Your task to perform on an android device: Open Reddit.com Image 0: 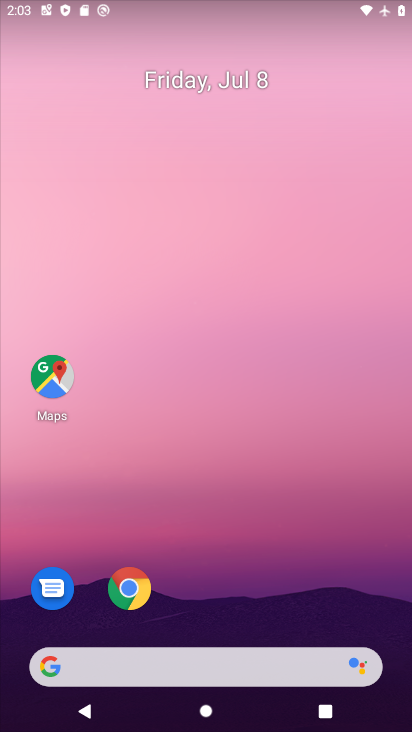
Step 0: press home button
Your task to perform on an android device: Open Reddit.com Image 1: 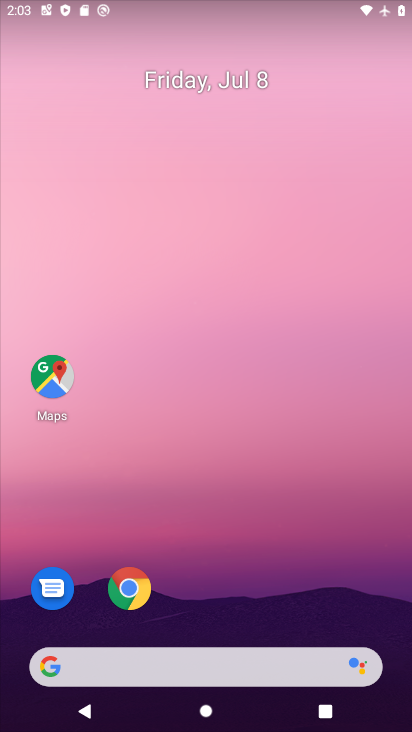
Step 1: drag from (204, 634) to (263, 146)
Your task to perform on an android device: Open Reddit.com Image 2: 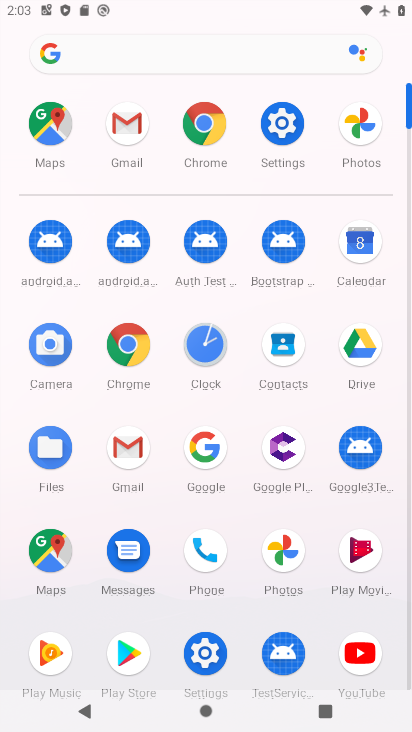
Step 2: click (202, 458)
Your task to perform on an android device: Open Reddit.com Image 3: 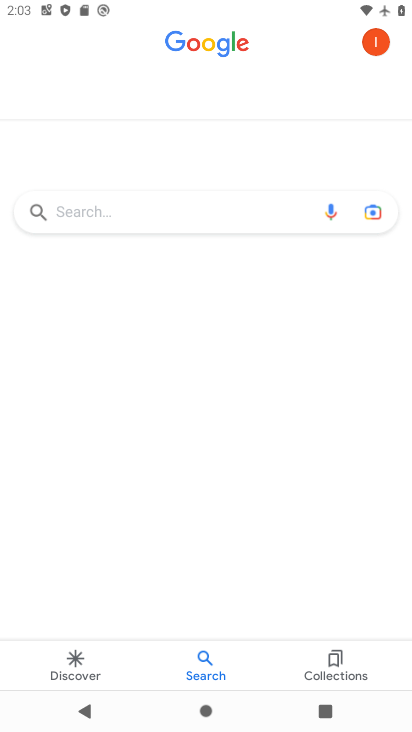
Step 3: type "Reddit.com"
Your task to perform on an android device: Open Reddit.com Image 4: 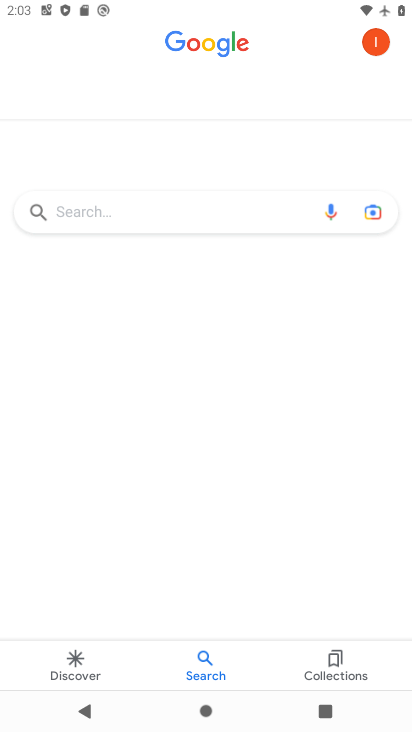
Step 4: click (192, 212)
Your task to perform on an android device: Open Reddit.com Image 5: 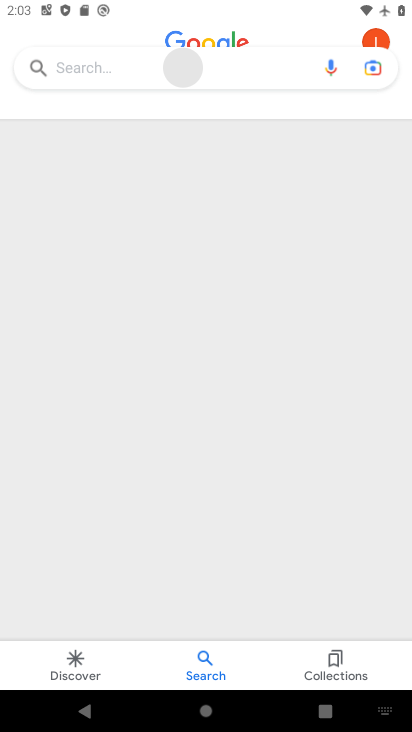
Step 5: click (192, 211)
Your task to perform on an android device: Open Reddit.com Image 6: 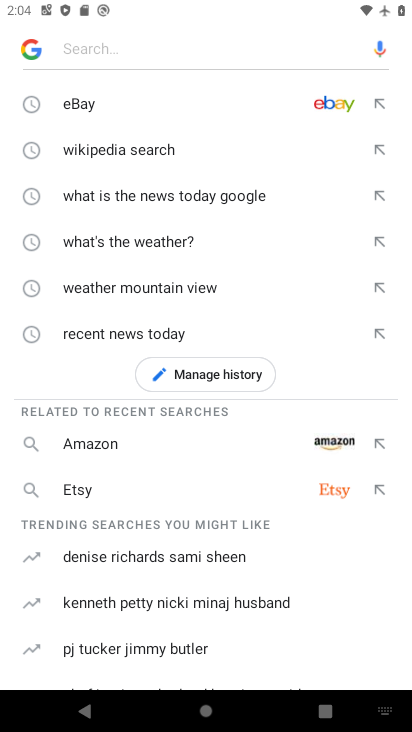
Step 6: type "Reddit.com"
Your task to perform on an android device: Open Reddit.com Image 7: 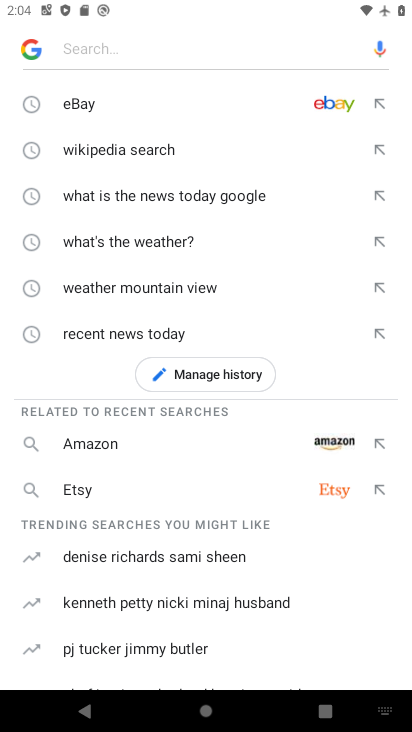
Step 7: click (243, 36)
Your task to perform on an android device: Open Reddit.com Image 8: 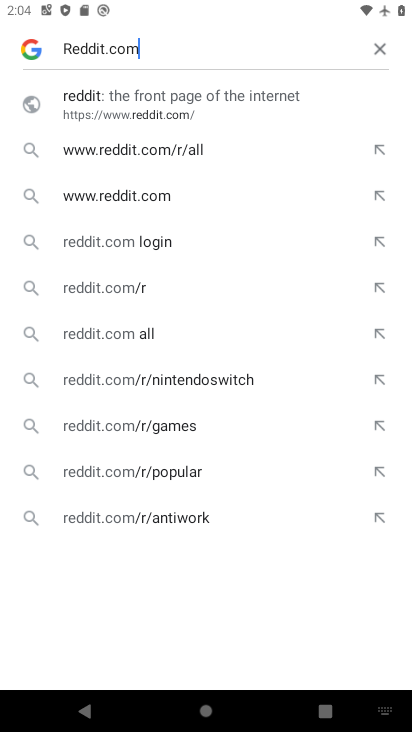
Step 8: click (134, 195)
Your task to perform on an android device: Open Reddit.com Image 9: 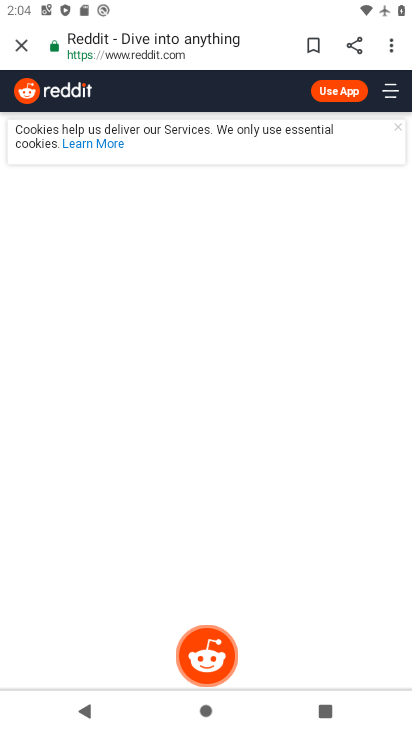
Step 9: task complete